Your task to perform on an android device: change the clock display to show seconds Image 0: 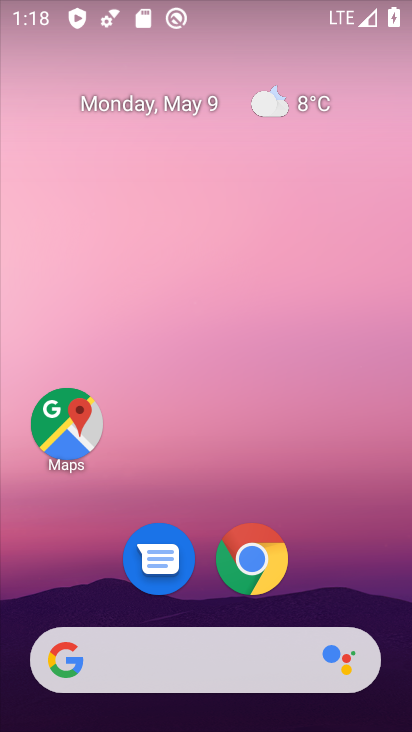
Step 0: drag from (319, 560) to (221, 179)
Your task to perform on an android device: change the clock display to show seconds Image 1: 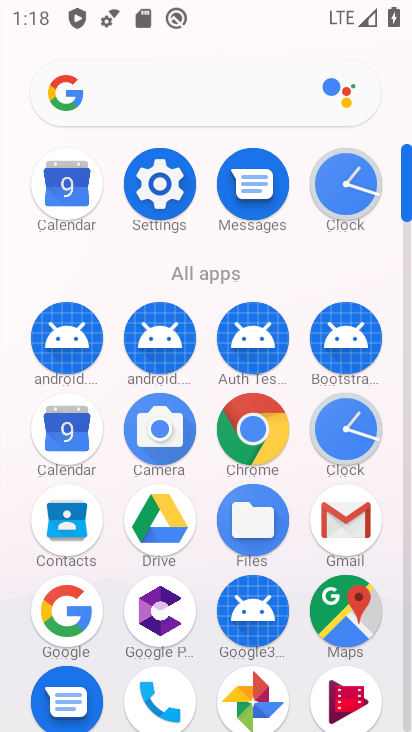
Step 1: click (343, 189)
Your task to perform on an android device: change the clock display to show seconds Image 2: 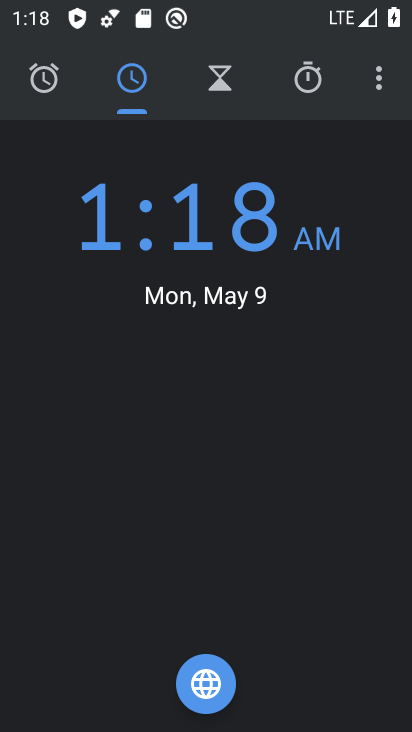
Step 2: click (377, 87)
Your task to perform on an android device: change the clock display to show seconds Image 3: 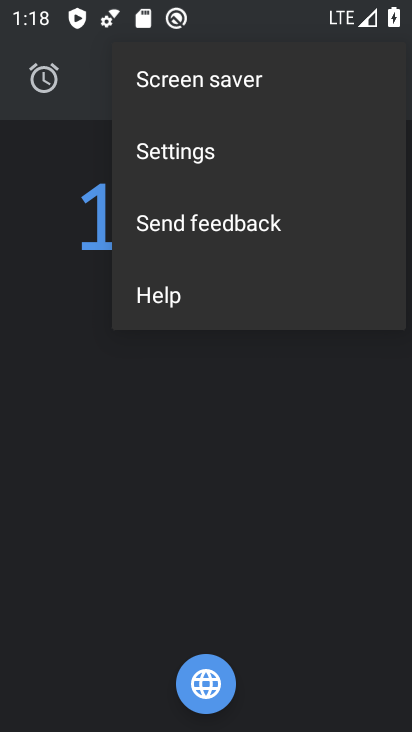
Step 3: click (196, 152)
Your task to perform on an android device: change the clock display to show seconds Image 4: 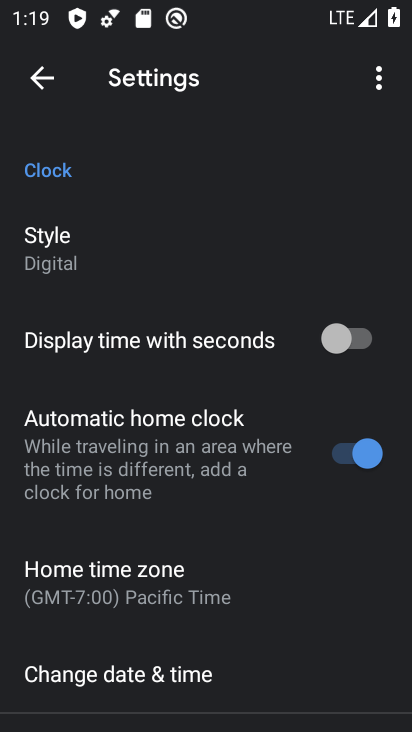
Step 4: click (335, 341)
Your task to perform on an android device: change the clock display to show seconds Image 5: 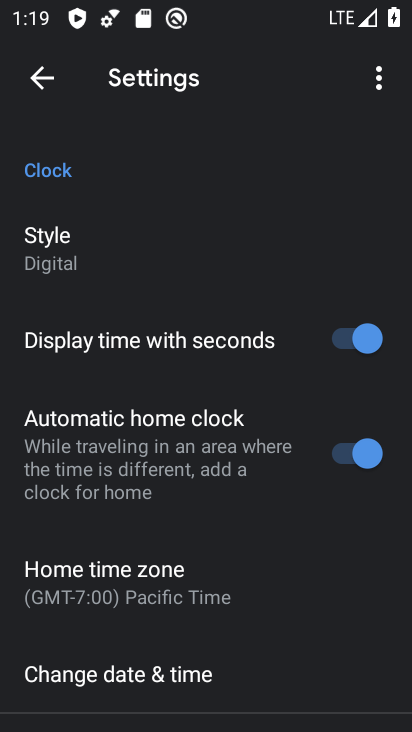
Step 5: task complete